Your task to perform on an android device: Play the last video I watched on Youtube Image 0: 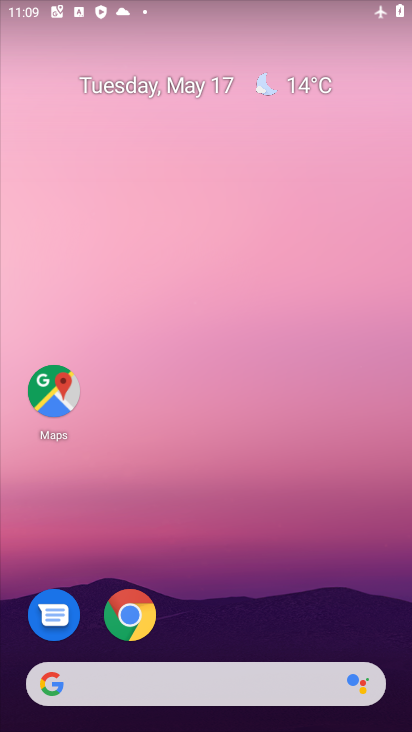
Step 0: drag from (374, 619) to (276, 182)
Your task to perform on an android device: Play the last video I watched on Youtube Image 1: 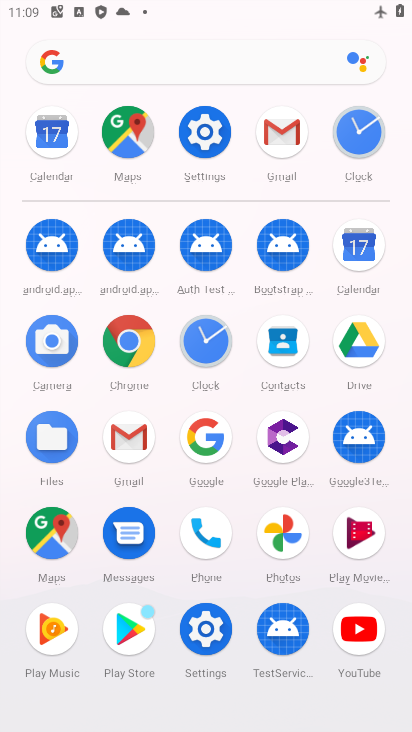
Step 1: click (354, 626)
Your task to perform on an android device: Play the last video I watched on Youtube Image 2: 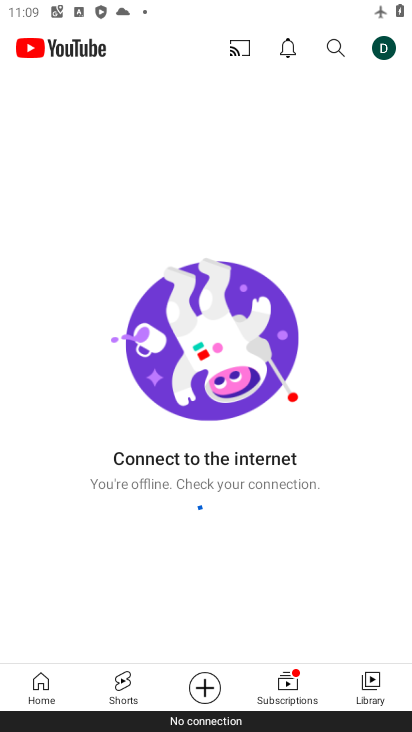
Step 2: click (369, 678)
Your task to perform on an android device: Play the last video I watched on Youtube Image 3: 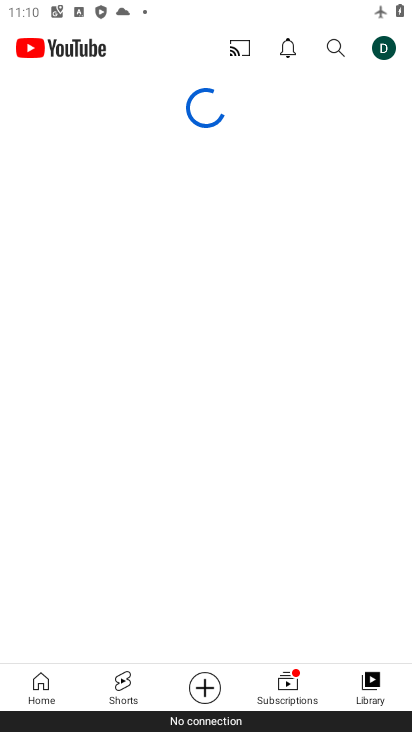
Step 3: task complete